Your task to perform on an android device: delete location history Image 0: 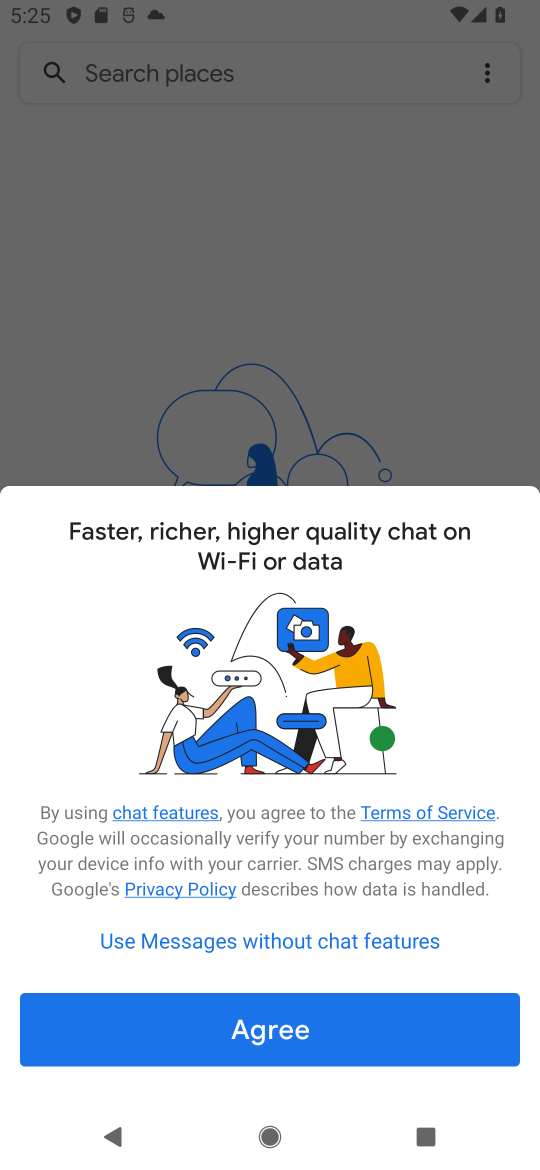
Step 0: press home button
Your task to perform on an android device: delete location history Image 1: 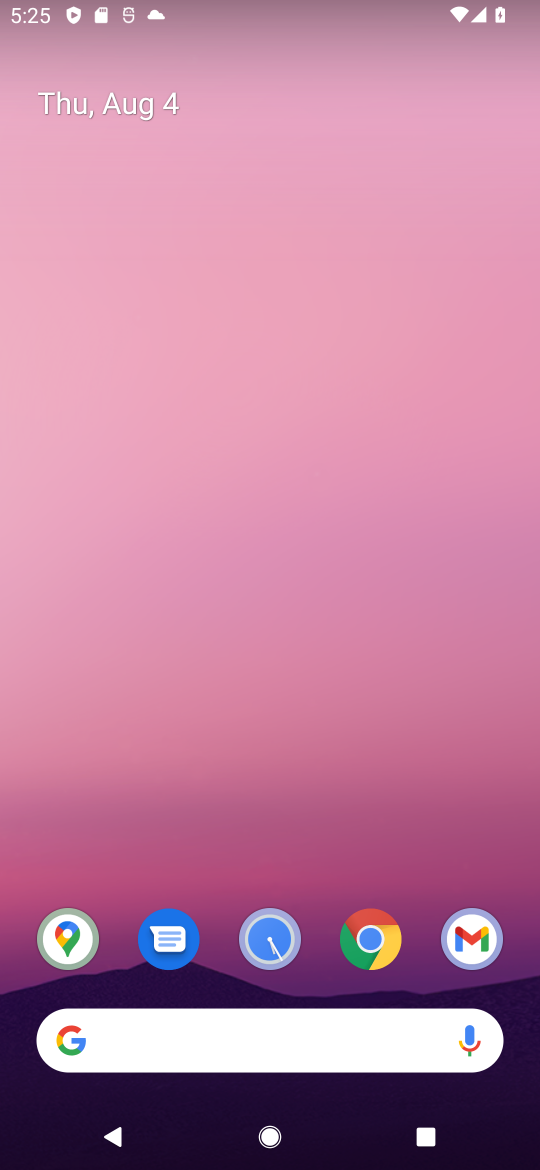
Step 1: drag from (195, 1007) to (272, 412)
Your task to perform on an android device: delete location history Image 2: 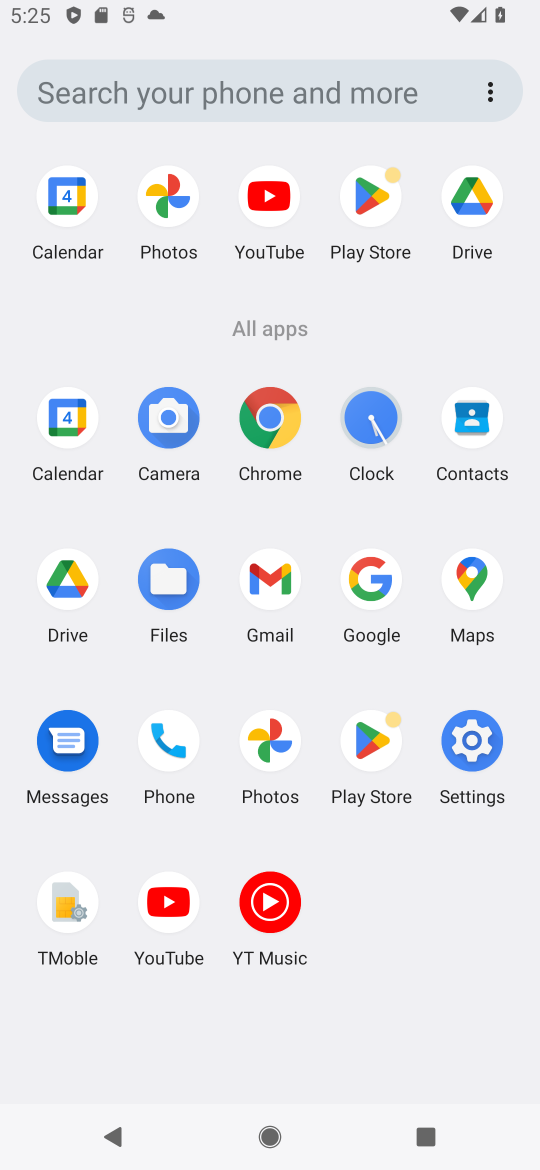
Step 2: click (468, 745)
Your task to perform on an android device: delete location history Image 3: 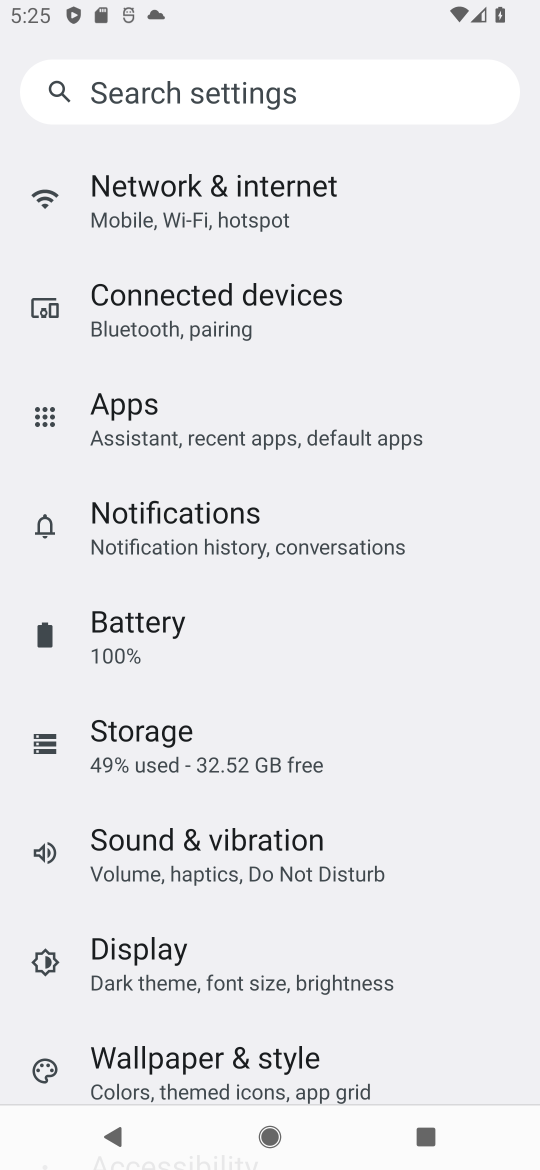
Step 3: drag from (145, 974) to (185, 469)
Your task to perform on an android device: delete location history Image 4: 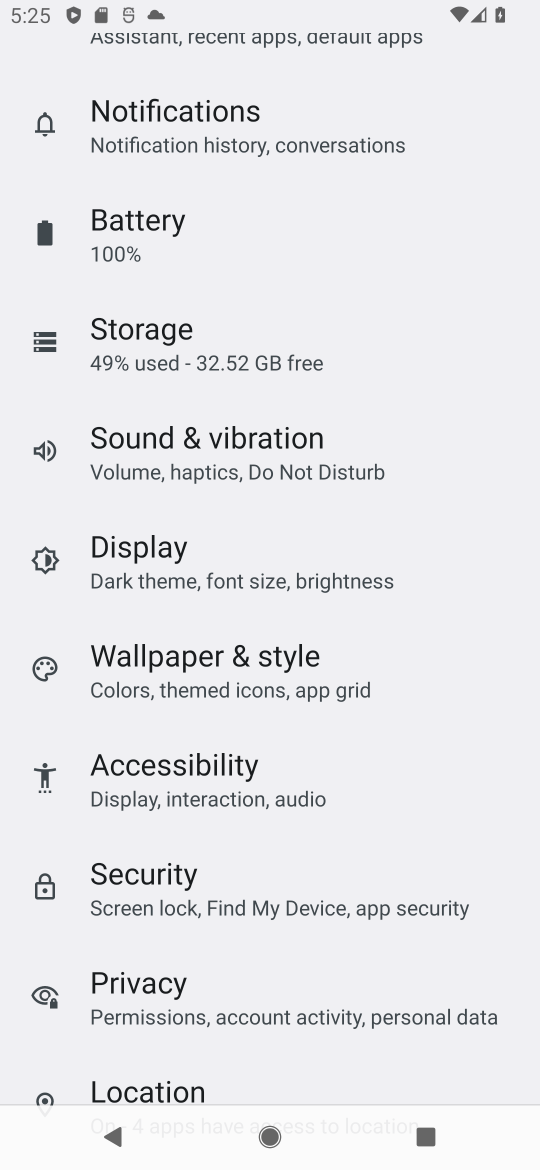
Step 4: click (130, 1082)
Your task to perform on an android device: delete location history Image 5: 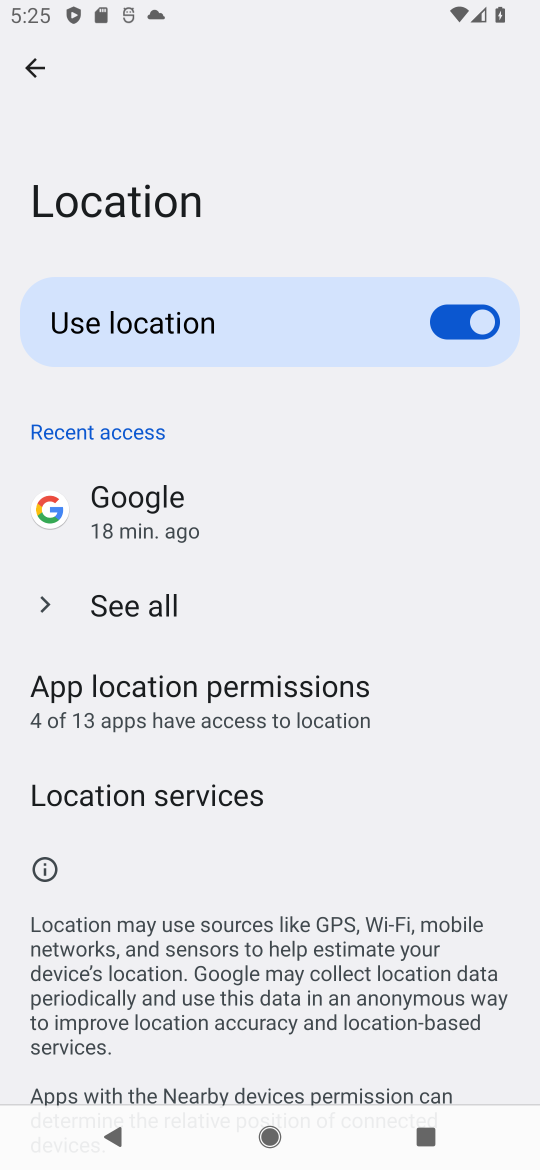
Step 5: click (122, 798)
Your task to perform on an android device: delete location history Image 6: 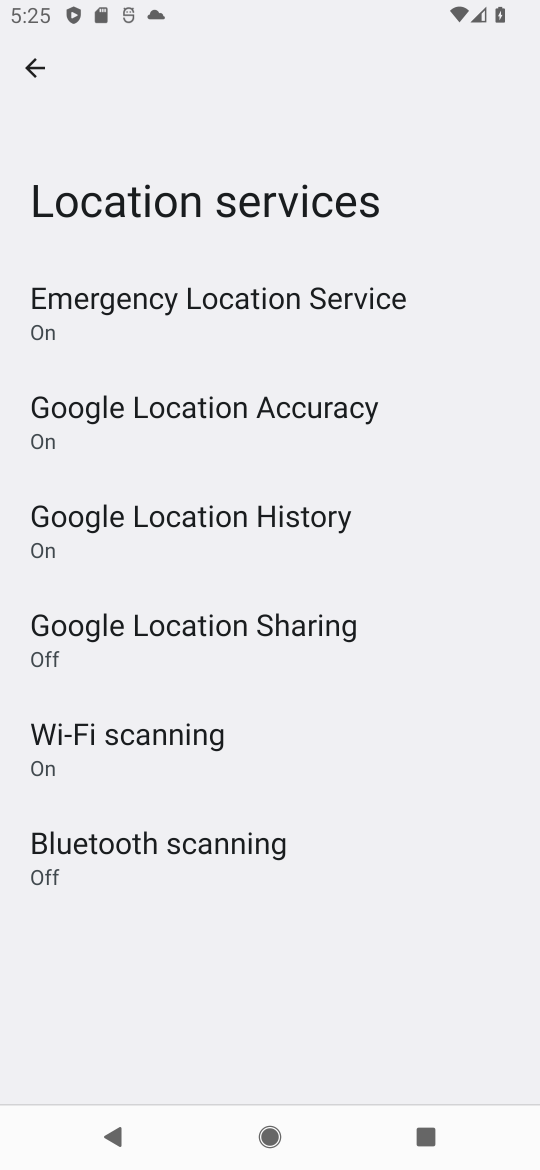
Step 6: click (152, 526)
Your task to perform on an android device: delete location history Image 7: 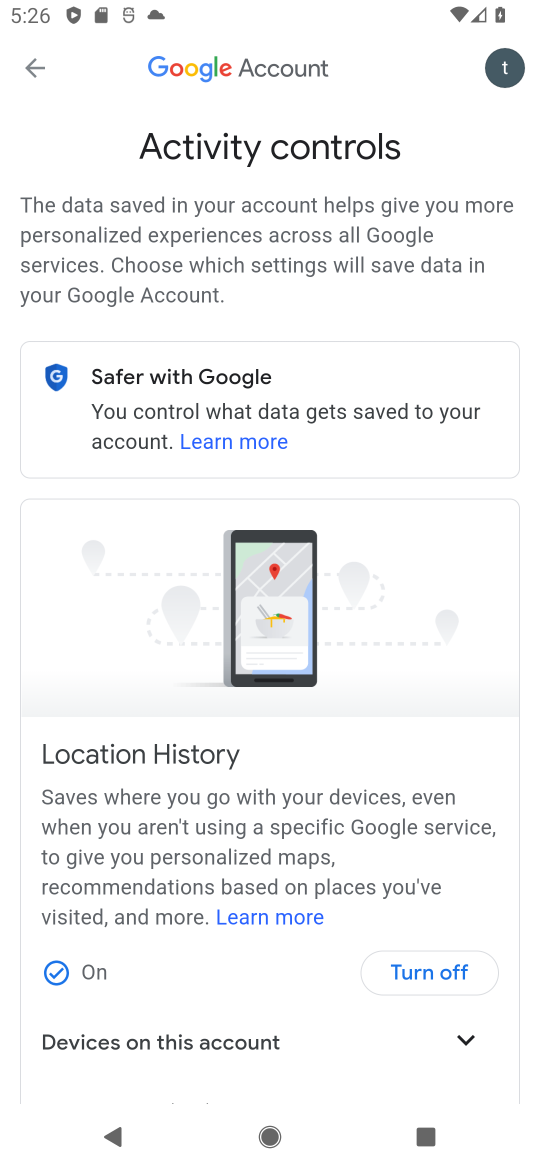
Step 7: drag from (263, 1061) to (250, 600)
Your task to perform on an android device: delete location history Image 8: 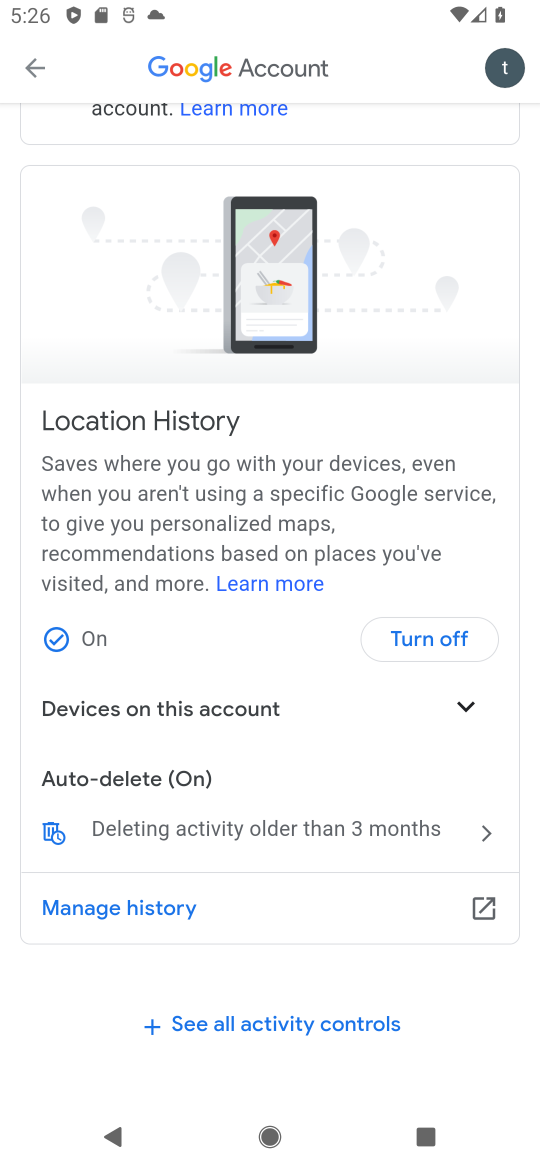
Step 8: click (121, 823)
Your task to perform on an android device: delete location history Image 9: 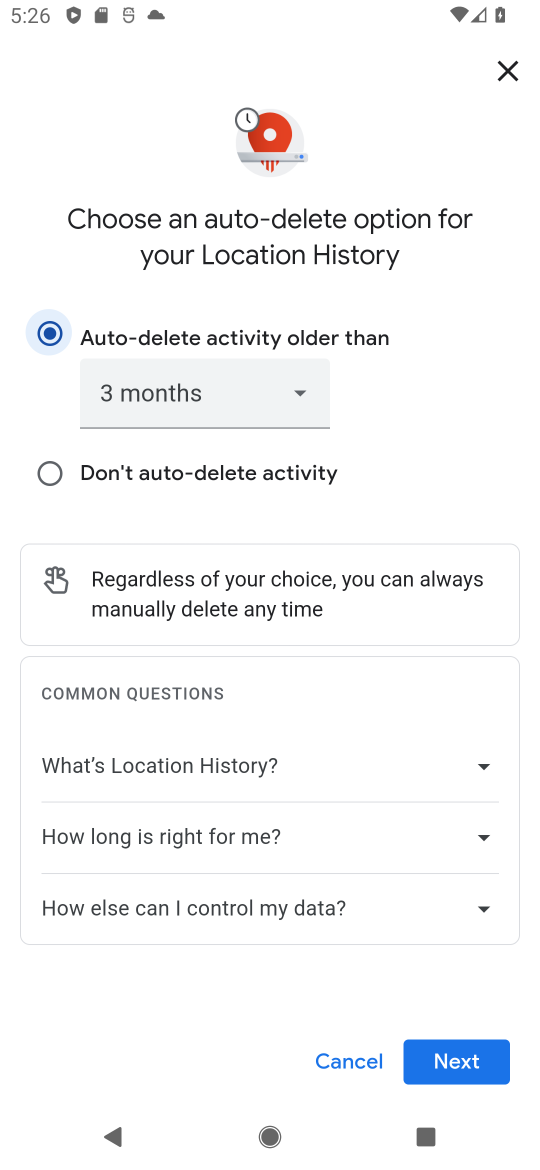
Step 9: click (467, 1059)
Your task to perform on an android device: delete location history Image 10: 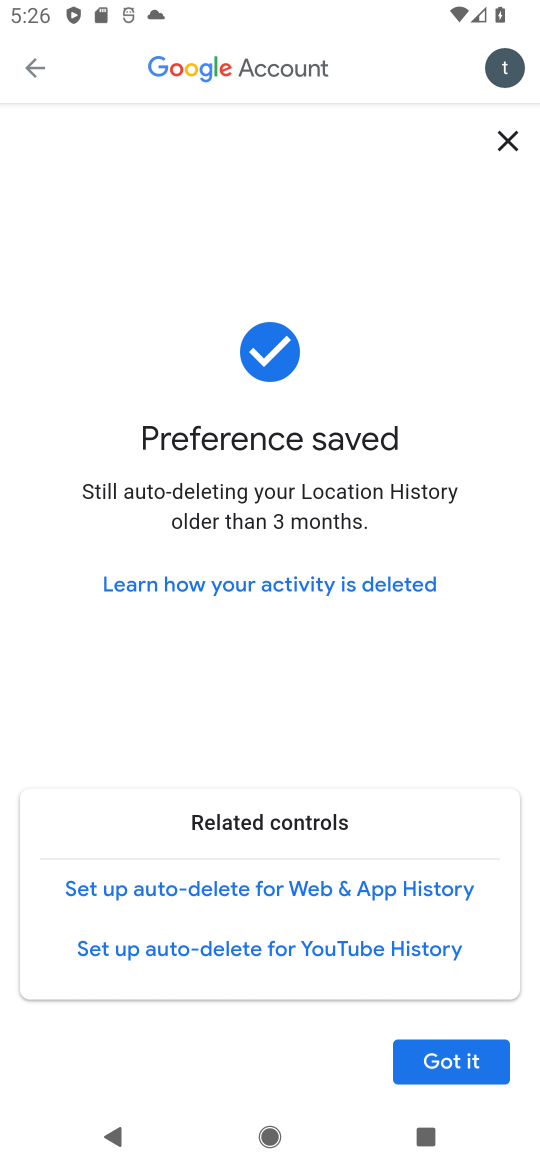
Step 10: click (453, 1064)
Your task to perform on an android device: delete location history Image 11: 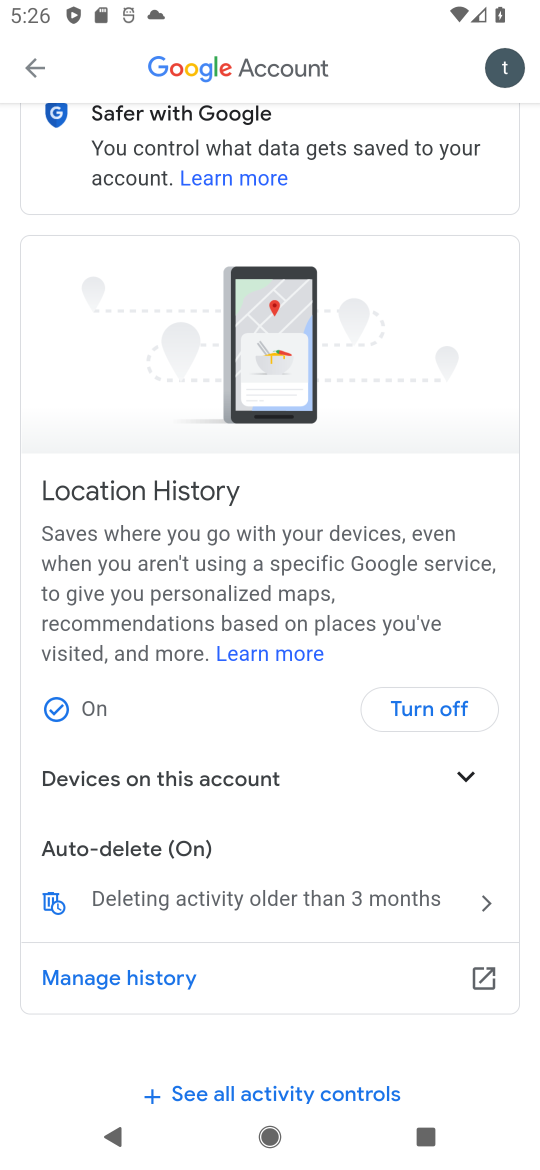
Step 11: task complete